Your task to perform on an android device: turn on priority inbox in the gmail app Image 0: 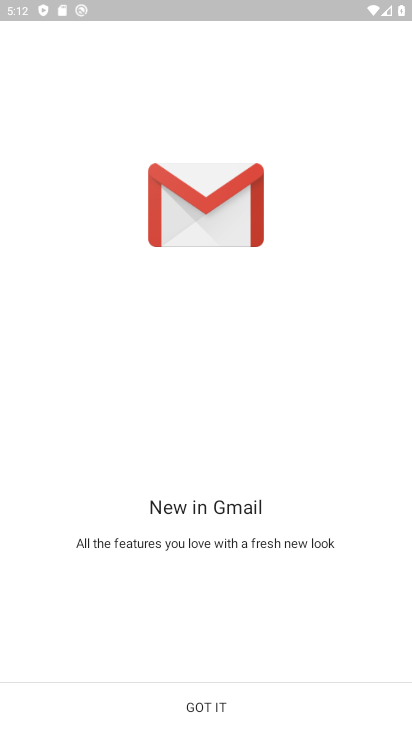
Step 0: click (217, 722)
Your task to perform on an android device: turn on priority inbox in the gmail app Image 1: 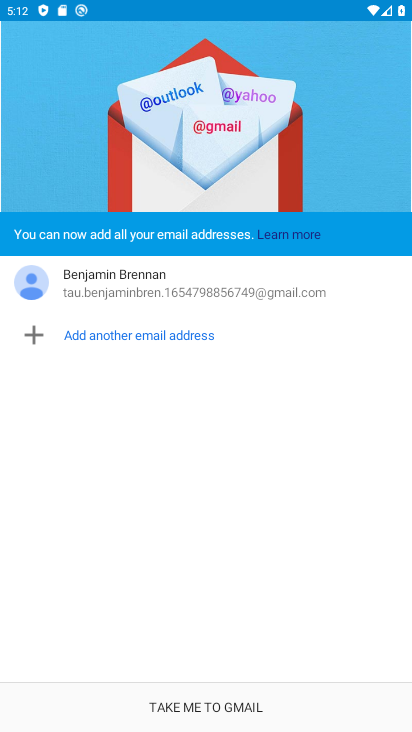
Step 1: click (240, 701)
Your task to perform on an android device: turn on priority inbox in the gmail app Image 2: 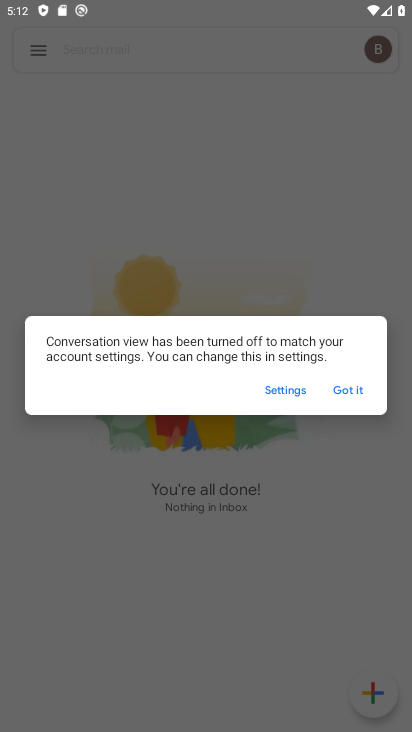
Step 2: click (353, 383)
Your task to perform on an android device: turn on priority inbox in the gmail app Image 3: 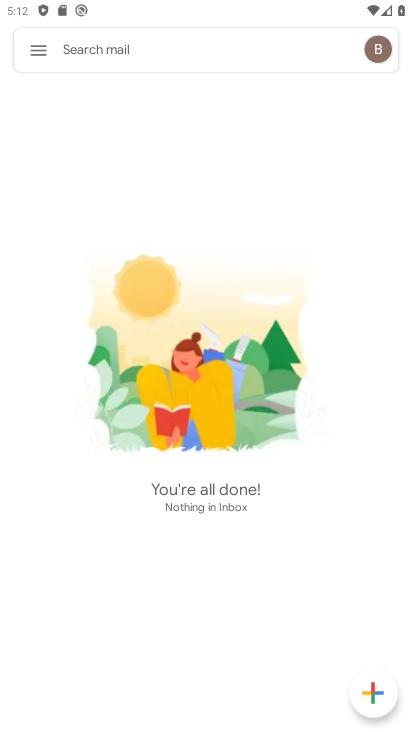
Step 3: click (45, 42)
Your task to perform on an android device: turn on priority inbox in the gmail app Image 4: 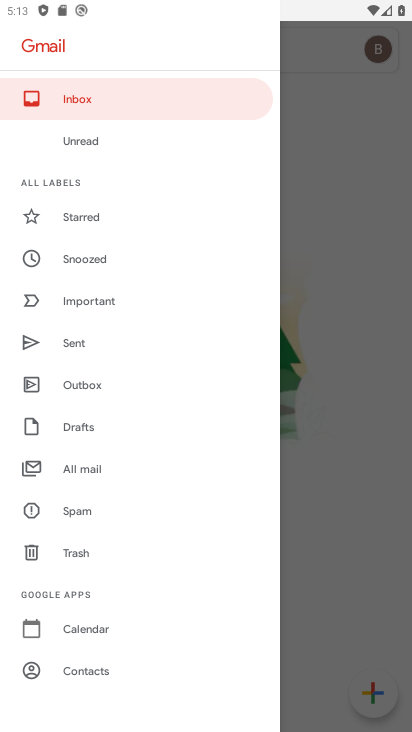
Step 4: drag from (110, 599) to (127, 235)
Your task to perform on an android device: turn on priority inbox in the gmail app Image 5: 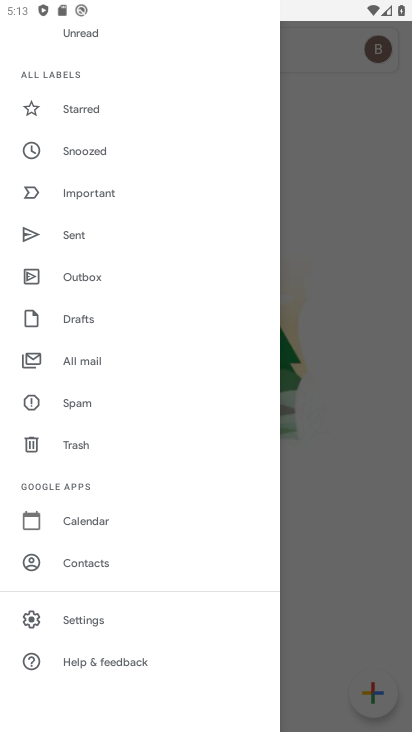
Step 5: click (71, 621)
Your task to perform on an android device: turn on priority inbox in the gmail app Image 6: 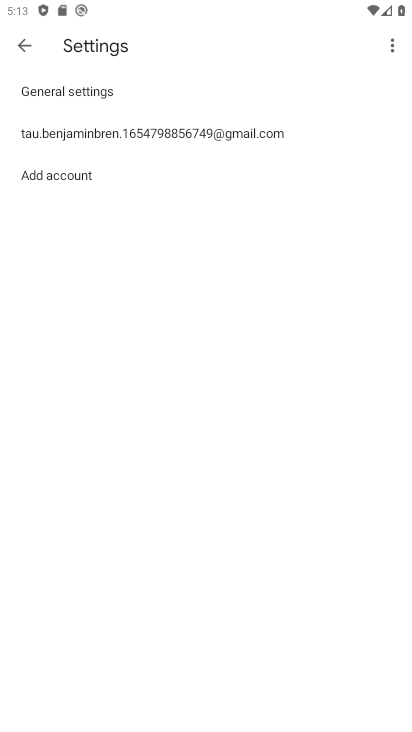
Step 6: click (209, 122)
Your task to perform on an android device: turn on priority inbox in the gmail app Image 7: 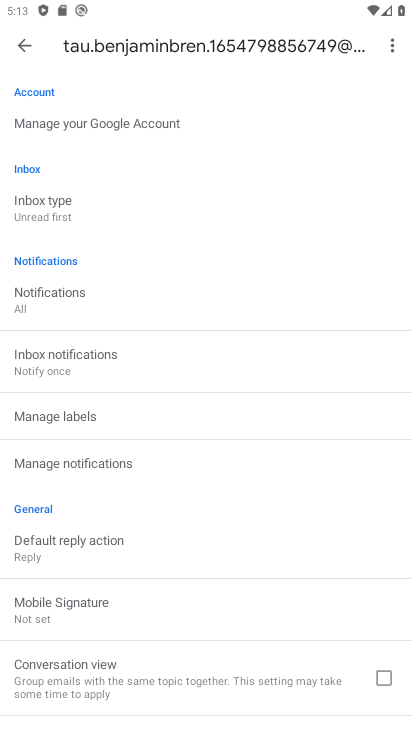
Step 7: click (40, 203)
Your task to perform on an android device: turn on priority inbox in the gmail app Image 8: 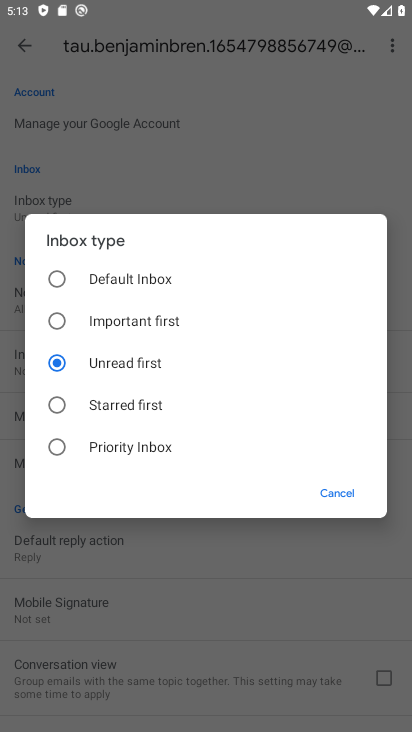
Step 8: click (103, 449)
Your task to perform on an android device: turn on priority inbox in the gmail app Image 9: 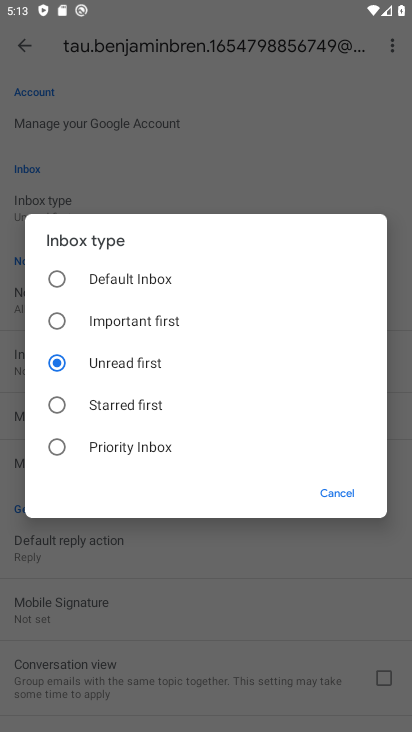
Step 9: click (119, 439)
Your task to perform on an android device: turn on priority inbox in the gmail app Image 10: 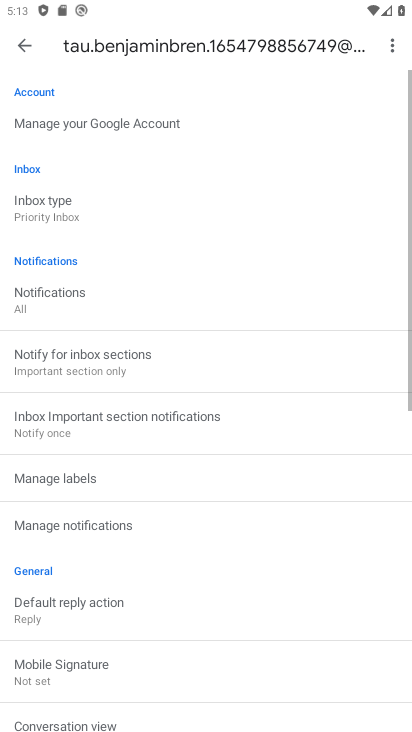
Step 10: task complete